Your task to perform on an android device: Open calendar and show me the fourth week of next month Image 0: 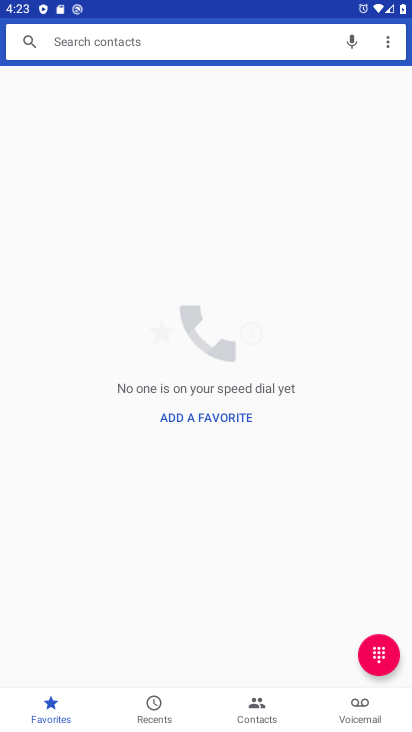
Step 0: press home button
Your task to perform on an android device: Open calendar and show me the fourth week of next month Image 1: 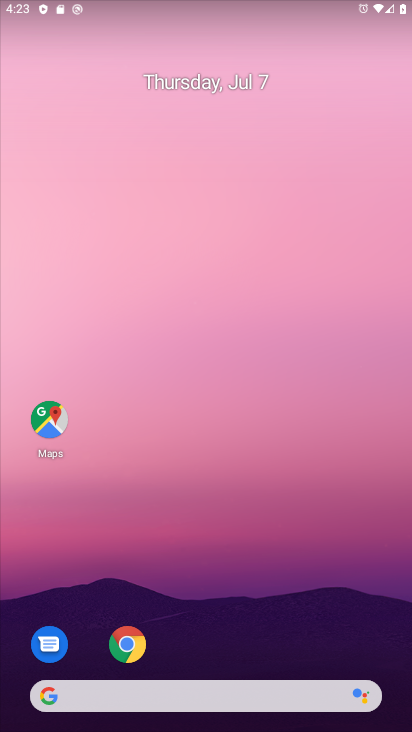
Step 1: drag from (245, 654) to (218, 134)
Your task to perform on an android device: Open calendar and show me the fourth week of next month Image 2: 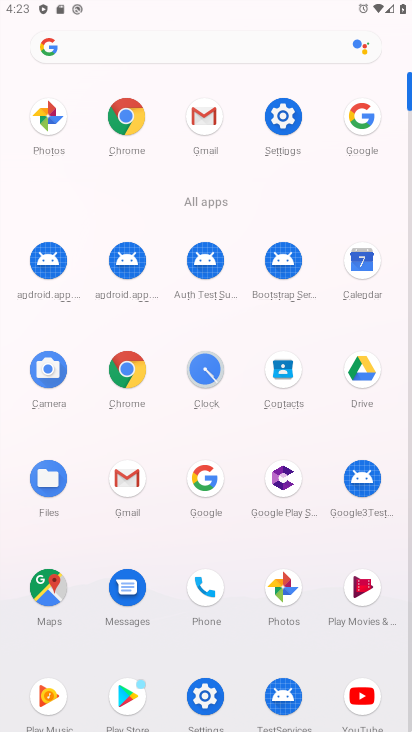
Step 2: click (364, 266)
Your task to perform on an android device: Open calendar and show me the fourth week of next month Image 3: 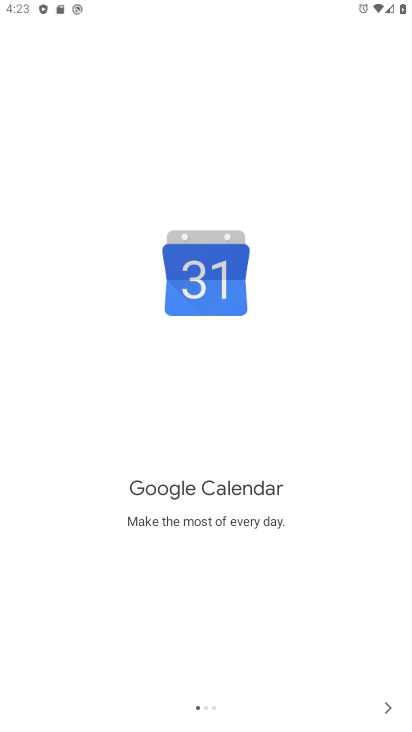
Step 3: click (388, 708)
Your task to perform on an android device: Open calendar and show me the fourth week of next month Image 4: 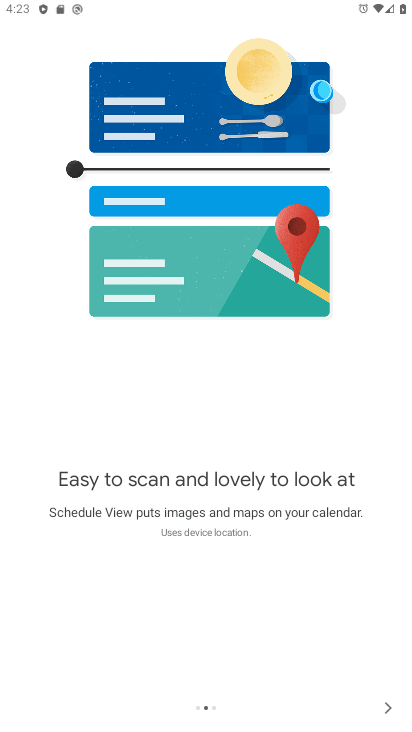
Step 4: click (388, 708)
Your task to perform on an android device: Open calendar and show me the fourth week of next month Image 5: 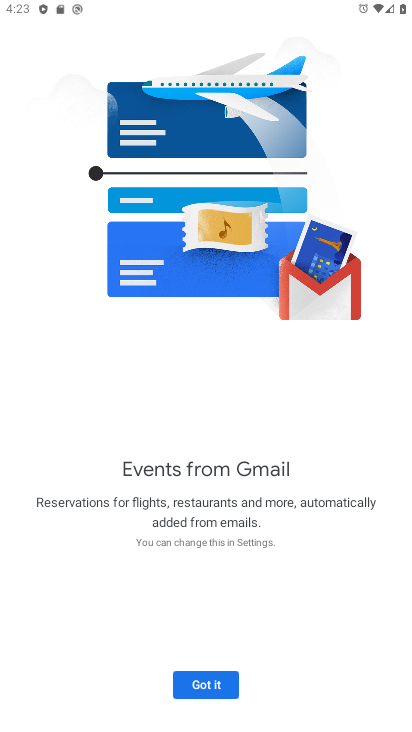
Step 5: click (215, 687)
Your task to perform on an android device: Open calendar and show me the fourth week of next month Image 6: 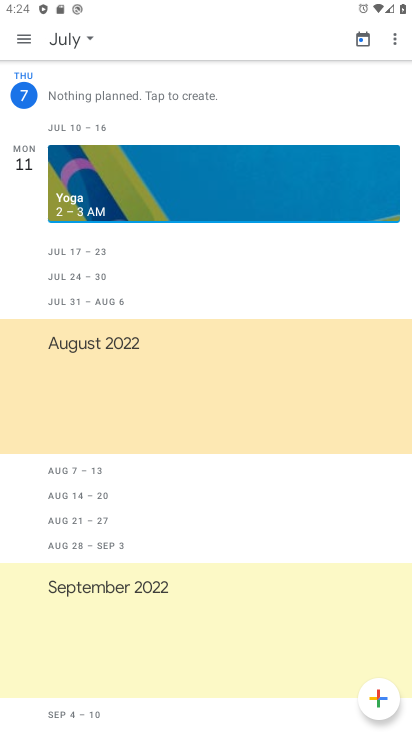
Step 6: click (363, 43)
Your task to perform on an android device: Open calendar and show me the fourth week of next month Image 7: 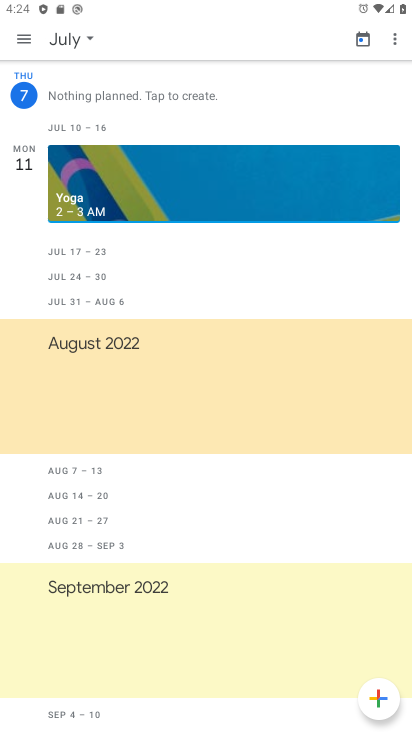
Step 7: click (89, 37)
Your task to perform on an android device: Open calendar and show me the fourth week of next month Image 8: 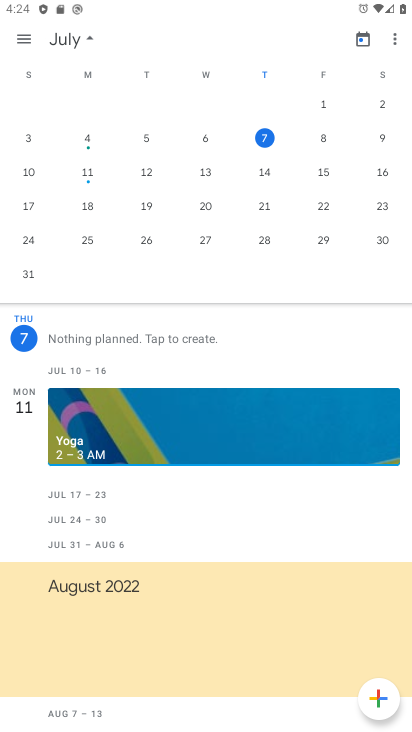
Step 8: drag from (372, 184) to (4, 206)
Your task to perform on an android device: Open calendar and show me the fourth week of next month Image 9: 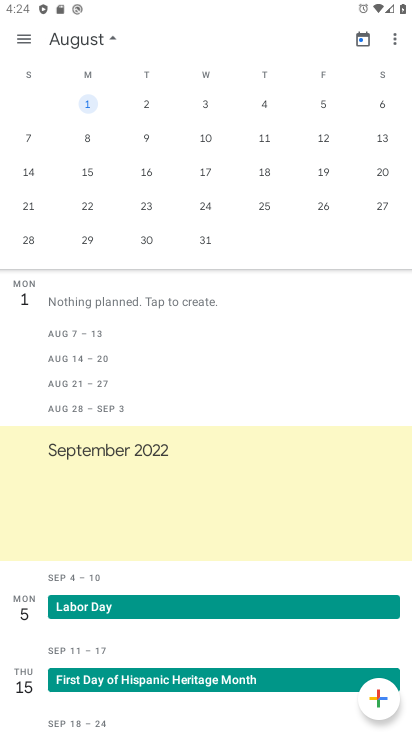
Step 9: click (92, 203)
Your task to perform on an android device: Open calendar and show me the fourth week of next month Image 10: 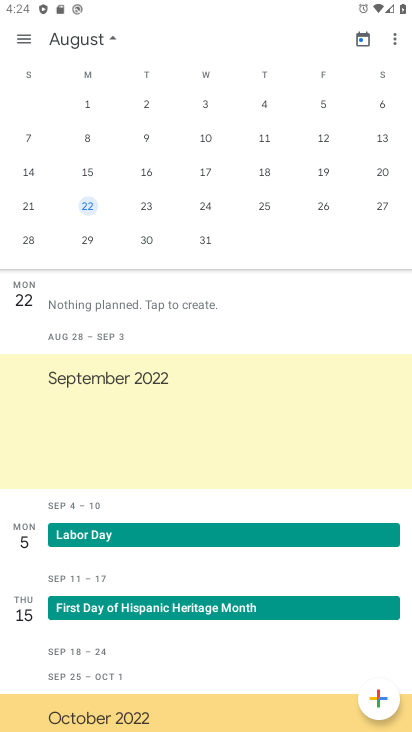
Step 10: click (20, 39)
Your task to perform on an android device: Open calendar and show me the fourth week of next month Image 11: 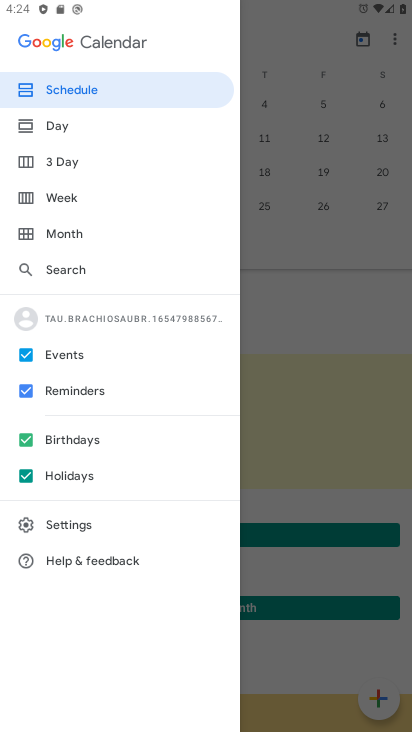
Step 11: click (46, 191)
Your task to perform on an android device: Open calendar and show me the fourth week of next month Image 12: 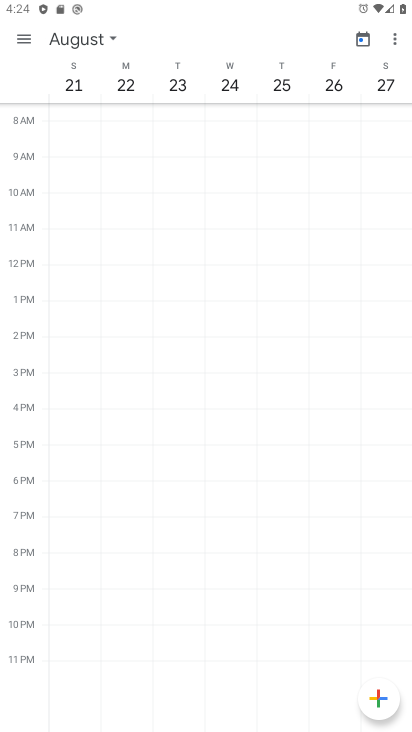
Step 12: task complete